Your task to perform on an android device: Open calendar and show me the fourth week of next month Image 0: 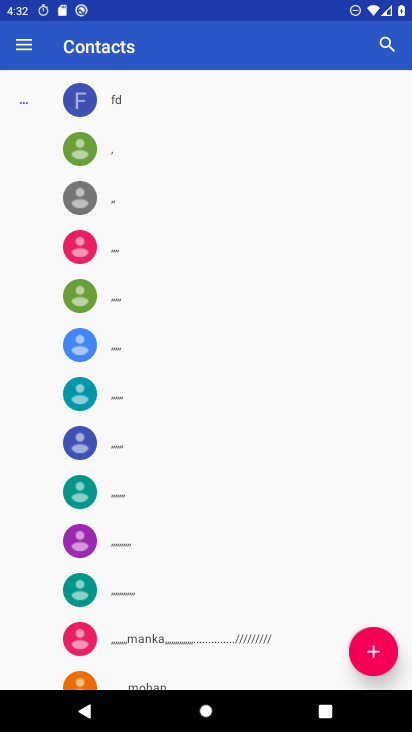
Step 0: press home button
Your task to perform on an android device: Open calendar and show me the fourth week of next month Image 1: 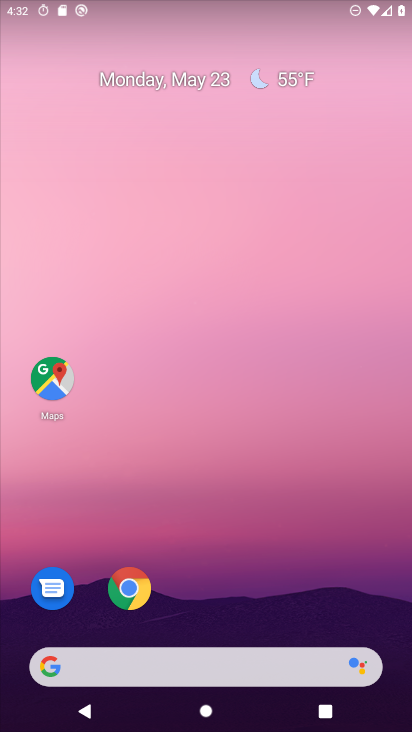
Step 1: drag from (224, 456) to (211, 76)
Your task to perform on an android device: Open calendar and show me the fourth week of next month Image 2: 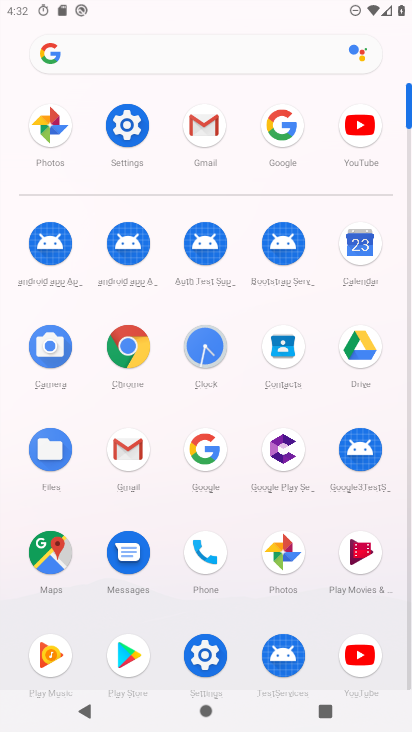
Step 2: click (360, 252)
Your task to perform on an android device: Open calendar and show me the fourth week of next month Image 3: 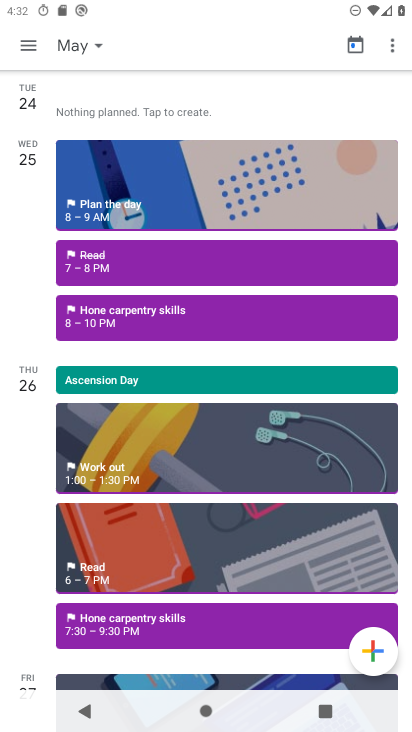
Step 3: click (90, 48)
Your task to perform on an android device: Open calendar and show me the fourth week of next month Image 4: 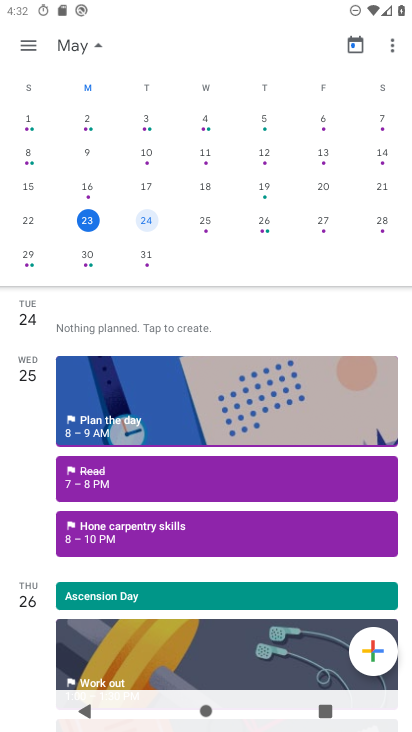
Step 4: drag from (351, 254) to (16, 233)
Your task to perform on an android device: Open calendar and show me the fourth week of next month Image 5: 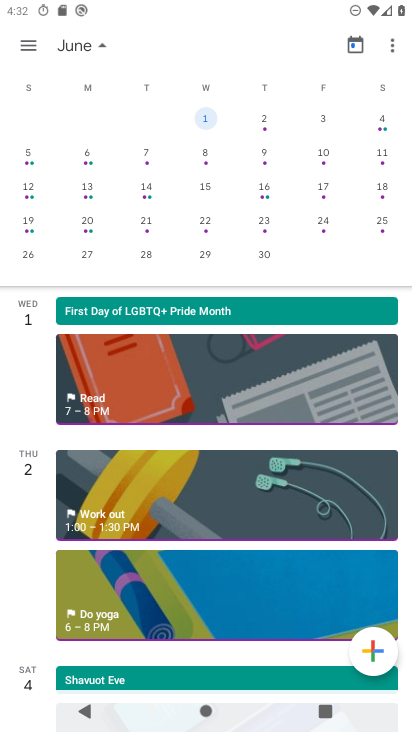
Step 5: click (210, 221)
Your task to perform on an android device: Open calendar and show me the fourth week of next month Image 6: 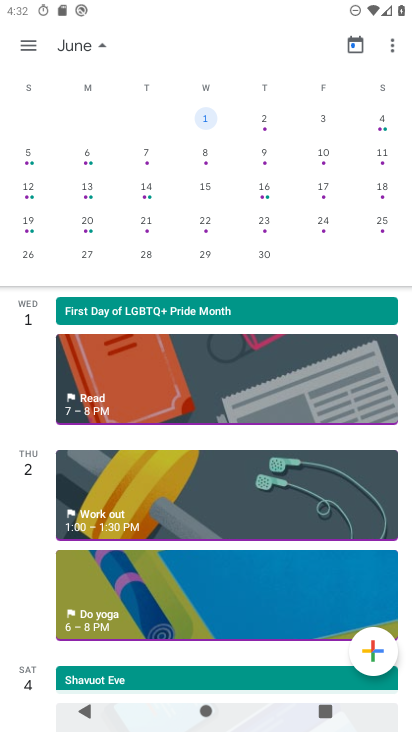
Step 6: click (202, 218)
Your task to perform on an android device: Open calendar and show me the fourth week of next month Image 7: 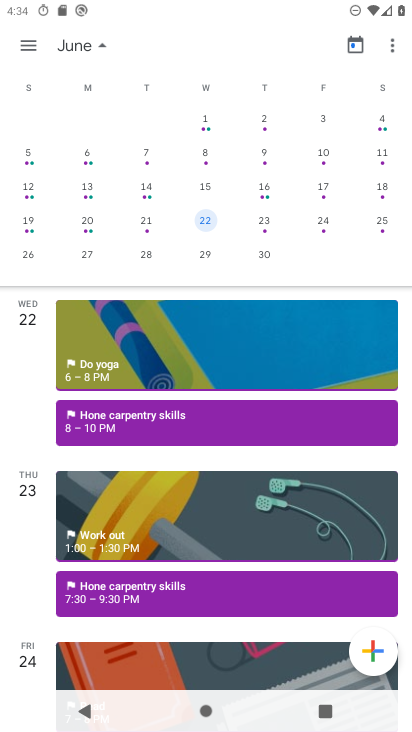
Step 7: task complete